Your task to perform on an android device: uninstall "Adobe Express: Graphic Design" Image 0: 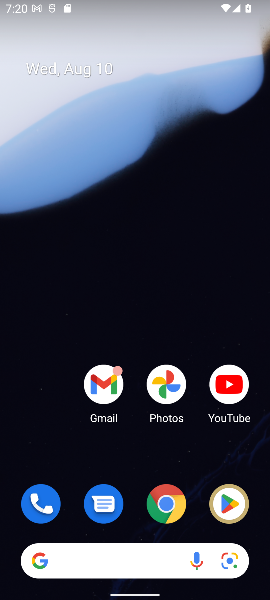
Step 0: drag from (127, 555) to (163, 43)
Your task to perform on an android device: uninstall "Adobe Express: Graphic Design" Image 1: 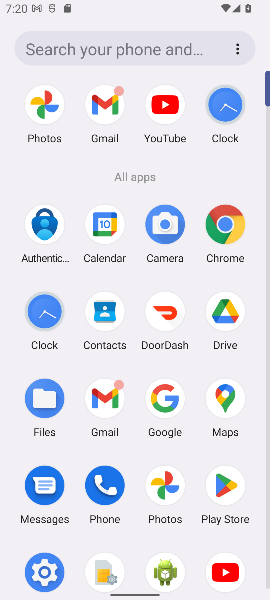
Step 1: click (223, 484)
Your task to perform on an android device: uninstall "Adobe Express: Graphic Design" Image 2: 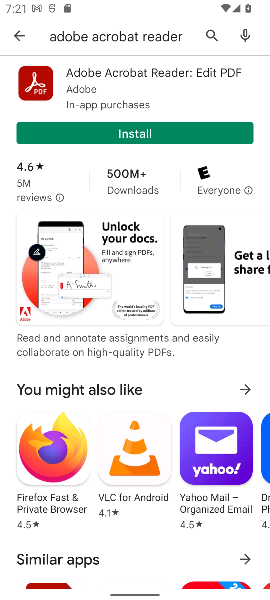
Step 2: click (215, 39)
Your task to perform on an android device: uninstall "Adobe Express: Graphic Design" Image 3: 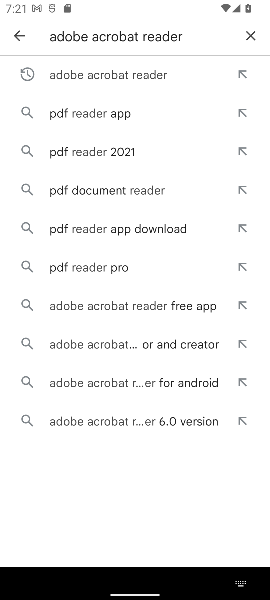
Step 3: click (243, 38)
Your task to perform on an android device: uninstall "Adobe Express: Graphic Design" Image 4: 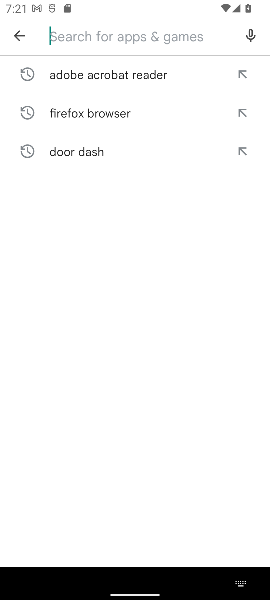
Step 4: click (254, 35)
Your task to perform on an android device: uninstall "Adobe Express: Graphic Design" Image 5: 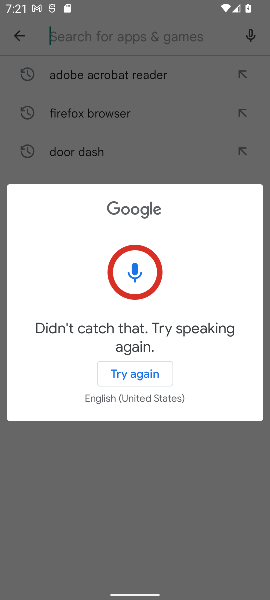
Step 5: click (163, 51)
Your task to perform on an android device: uninstall "Adobe Express: Graphic Design" Image 6: 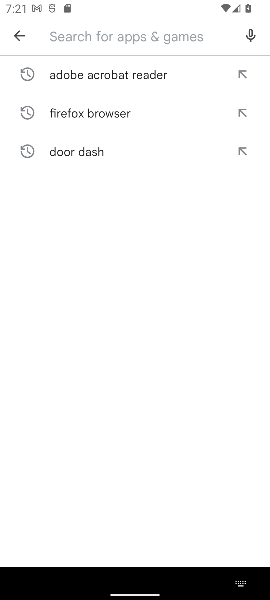
Step 6: type "Adobe Express: Graphic Design"
Your task to perform on an android device: uninstall "Adobe Express: Graphic Design" Image 7: 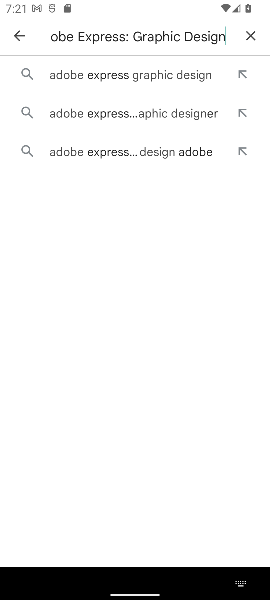
Step 7: click (125, 72)
Your task to perform on an android device: uninstall "Adobe Express: Graphic Design" Image 8: 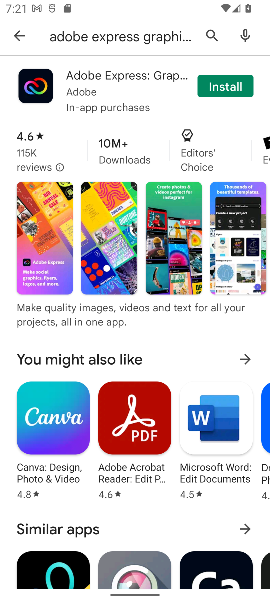
Step 8: task complete